Your task to perform on an android device: change the clock display to analog Image 0: 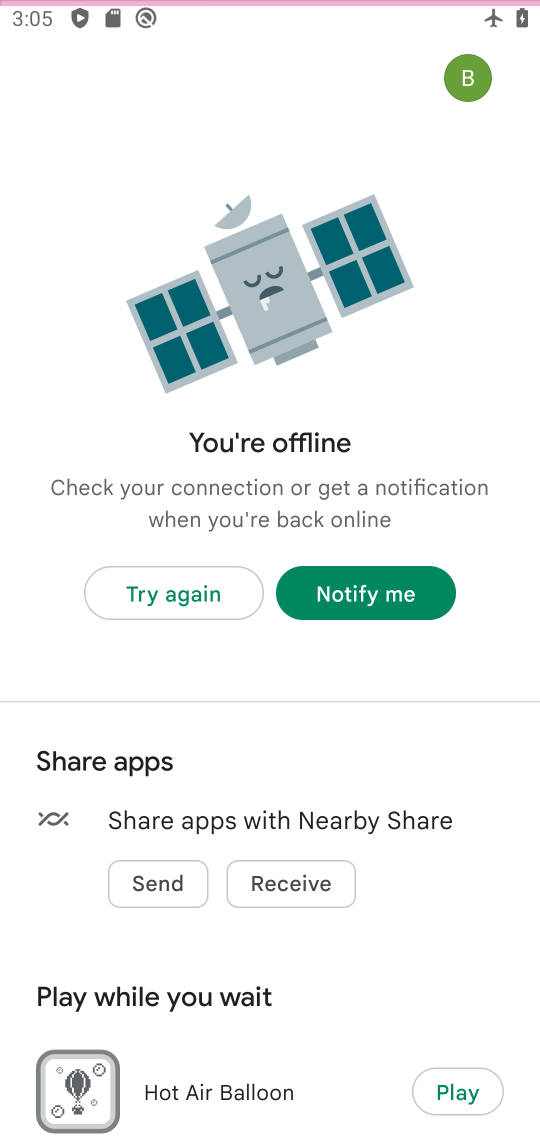
Step 0: press home button
Your task to perform on an android device: change the clock display to analog Image 1: 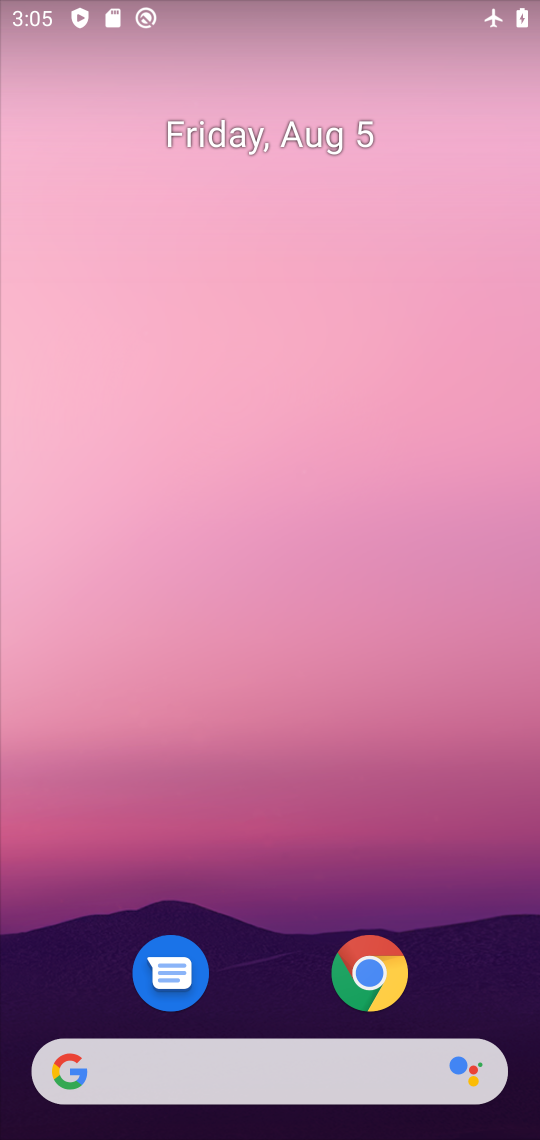
Step 1: drag from (287, 999) to (188, 0)
Your task to perform on an android device: change the clock display to analog Image 2: 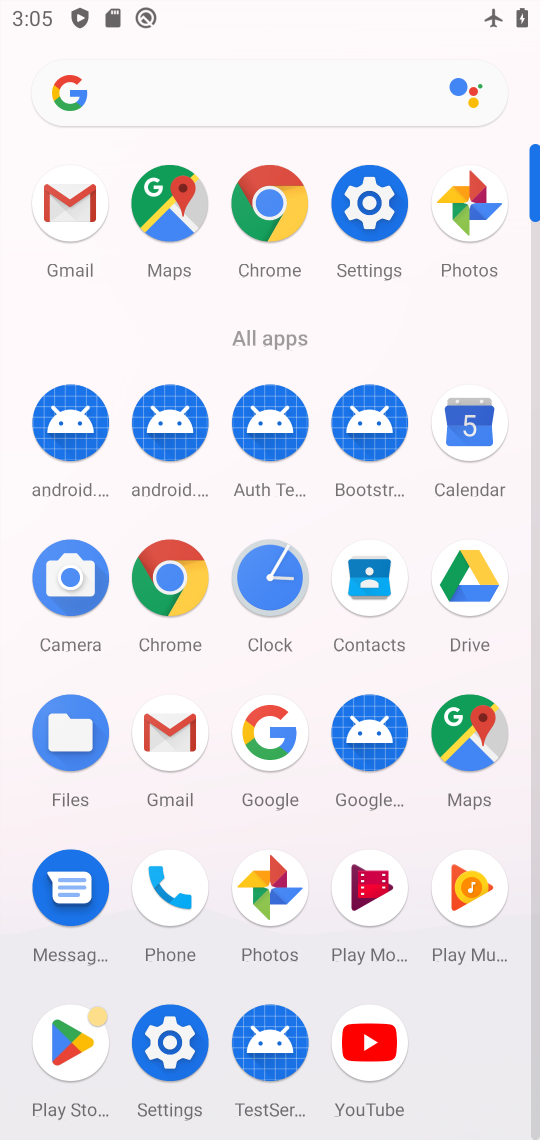
Step 2: click (265, 613)
Your task to perform on an android device: change the clock display to analog Image 3: 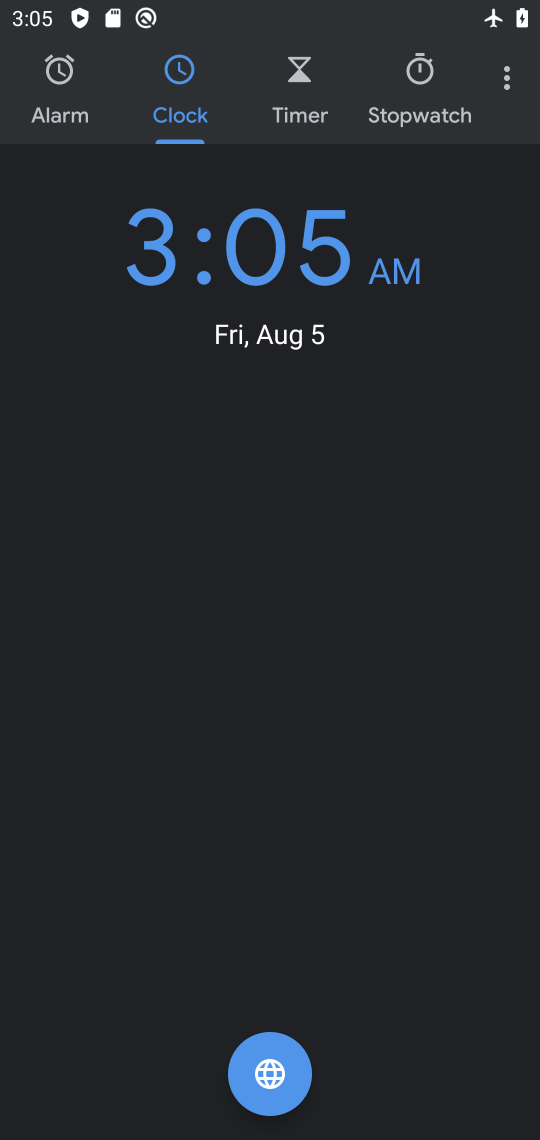
Step 3: click (491, 72)
Your task to perform on an android device: change the clock display to analog Image 4: 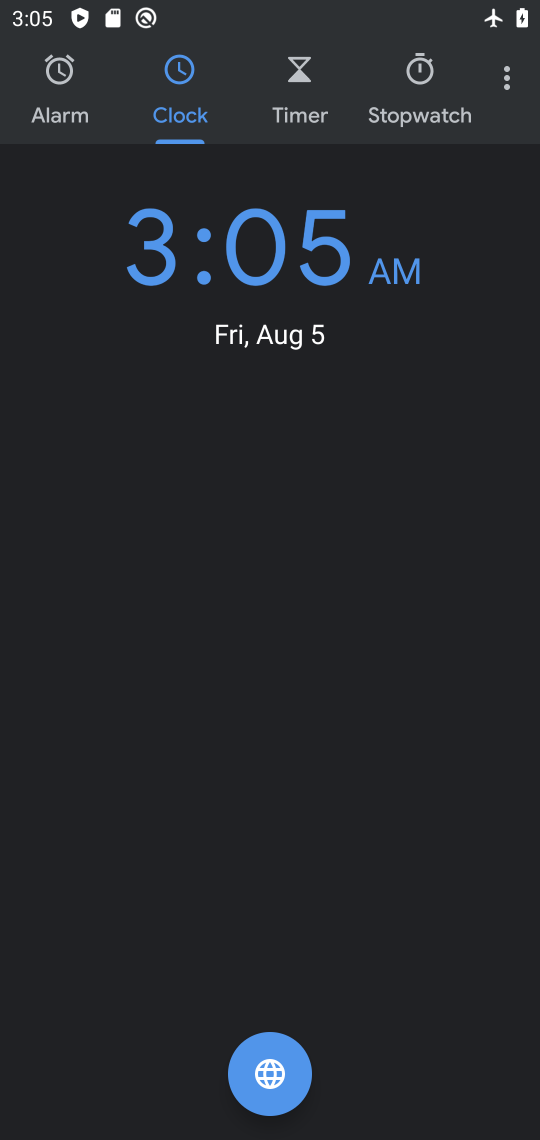
Step 4: click (505, 87)
Your task to perform on an android device: change the clock display to analog Image 5: 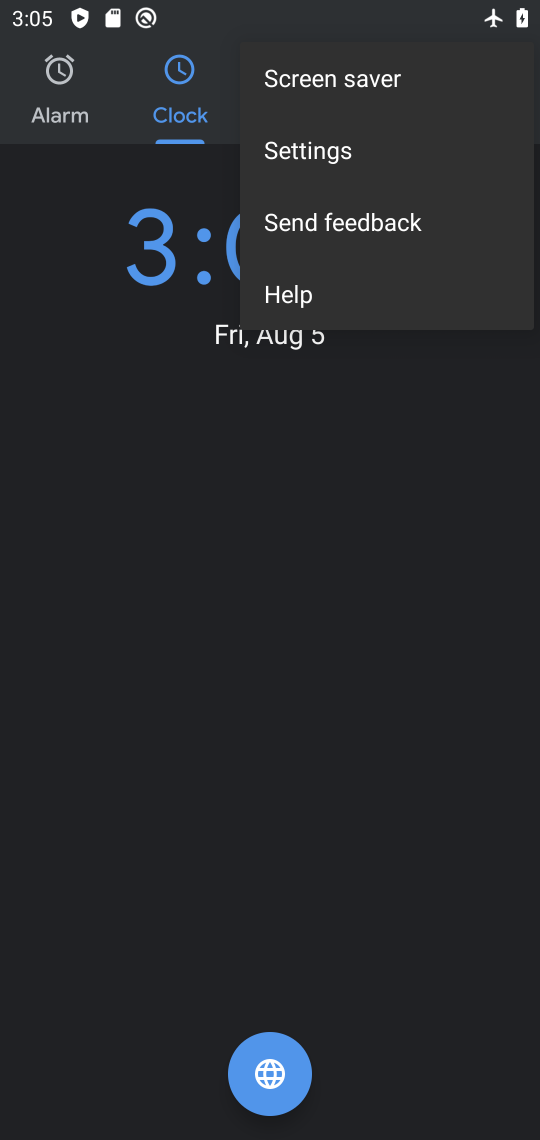
Step 5: click (359, 141)
Your task to perform on an android device: change the clock display to analog Image 6: 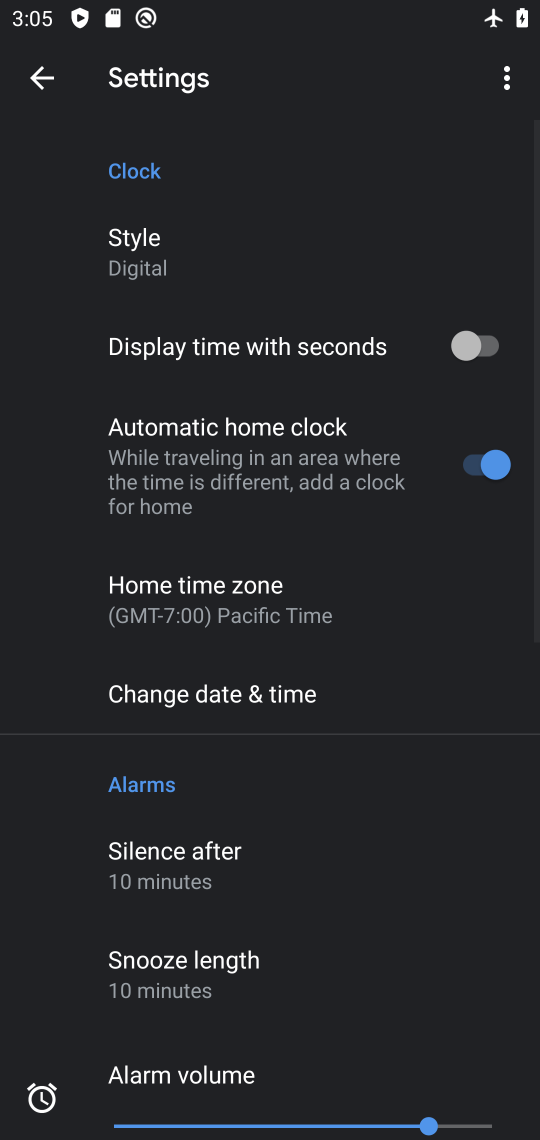
Step 6: click (194, 229)
Your task to perform on an android device: change the clock display to analog Image 7: 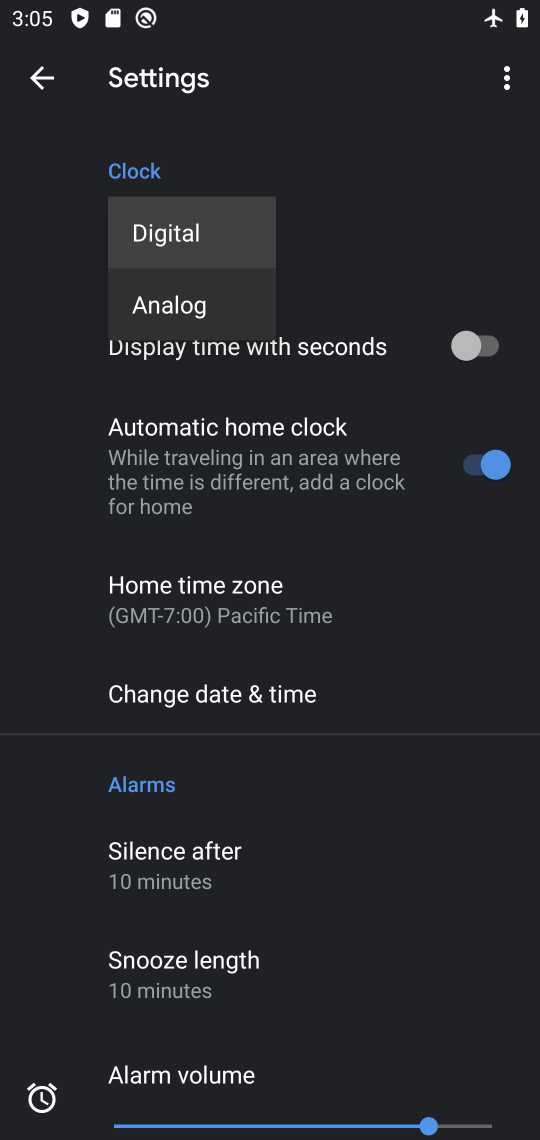
Step 7: click (206, 300)
Your task to perform on an android device: change the clock display to analog Image 8: 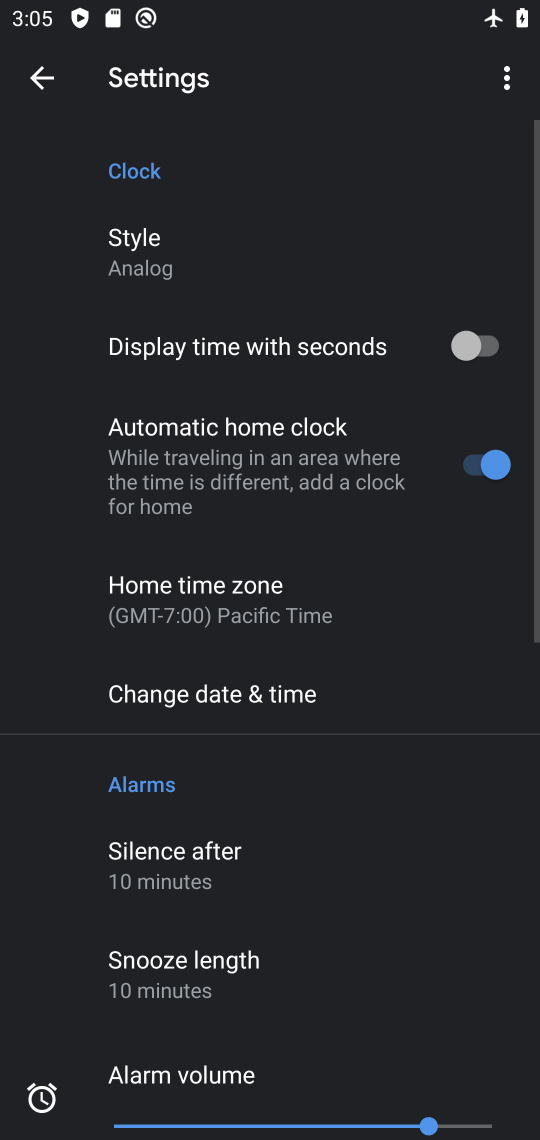
Step 8: task complete